Your task to perform on an android device: turn pop-ups off in chrome Image 0: 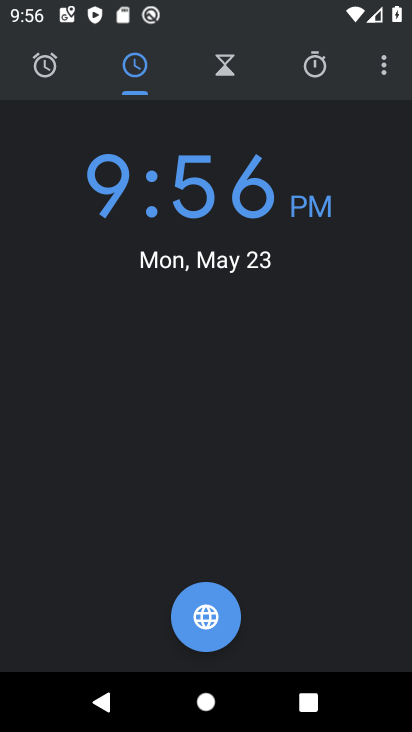
Step 0: press home button
Your task to perform on an android device: turn pop-ups off in chrome Image 1: 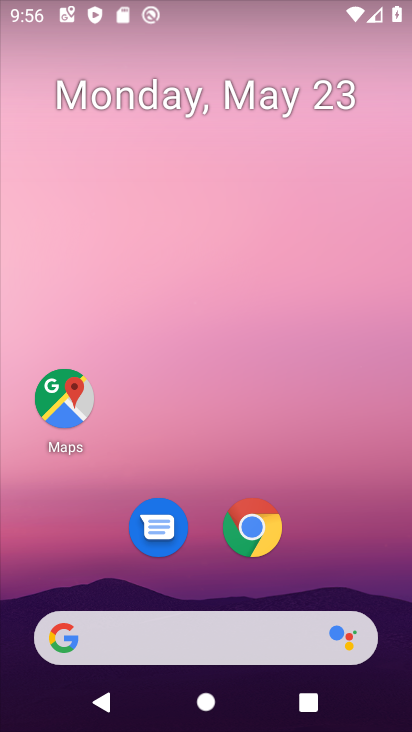
Step 1: click (259, 555)
Your task to perform on an android device: turn pop-ups off in chrome Image 2: 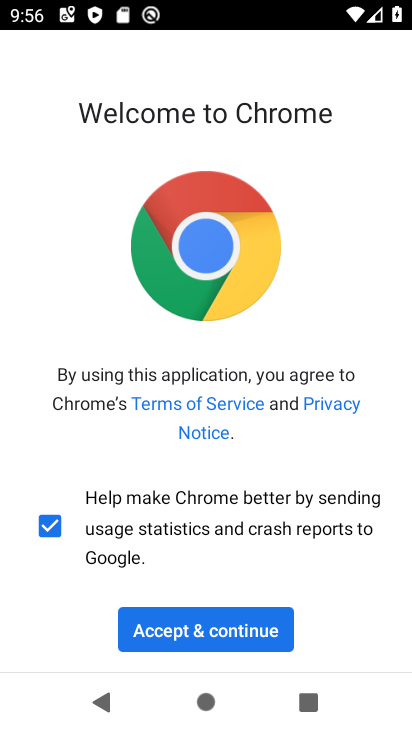
Step 2: click (210, 623)
Your task to perform on an android device: turn pop-ups off in chrome Image 3: 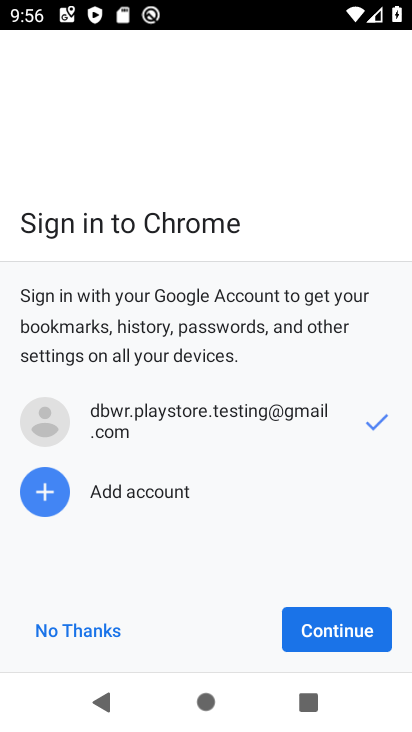
Step 3: click (337, 630)
Your task to perform on an android device: turn pop-ups off in chrome Image 4: 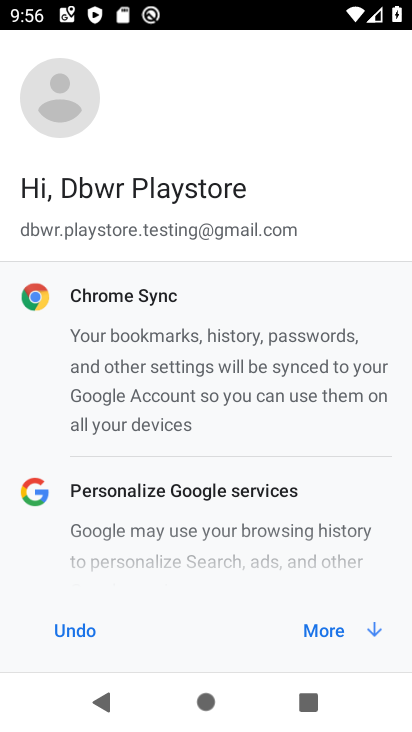
Step 4: click (335, 630)
Your task to perform on an android device: turn pop-ups off in chrome Image 5: 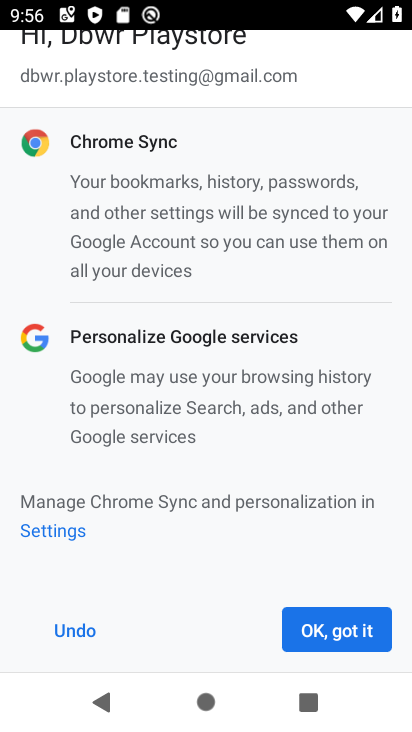
Step 5: click (335, 630)
Your task to perform on an android device: turn pop-ups off in chrome Image 6: 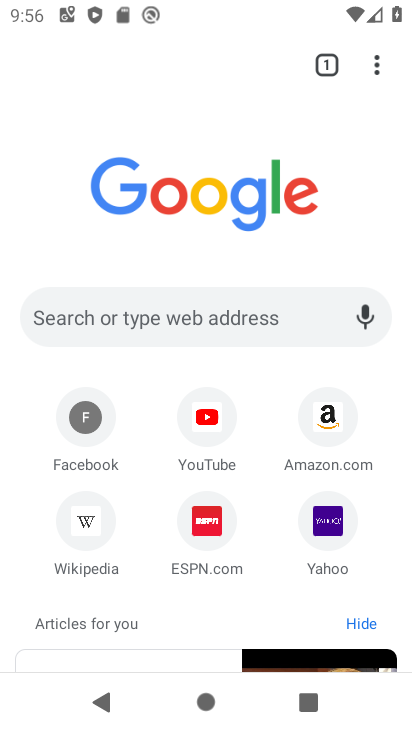
Step 6: drag from (380, 66) to (156, 548)
Your task to perform on an android device: turn pop-ups off in chrome Image 7: 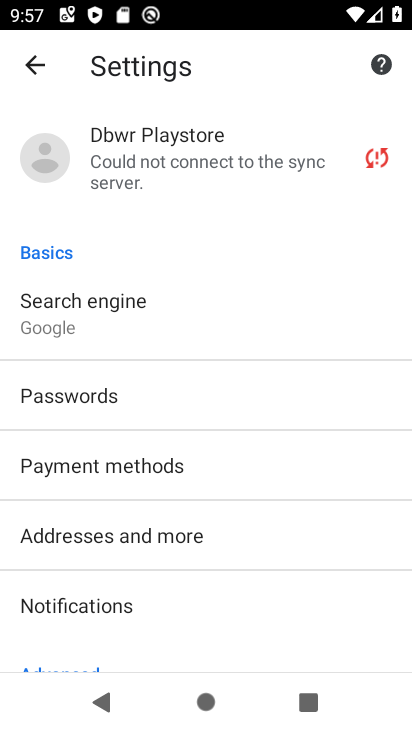
Step 7: drag from (92, 597) to (49, 186)
Your task to perform on an android device: turn pop-ups off in chrome Image 8: 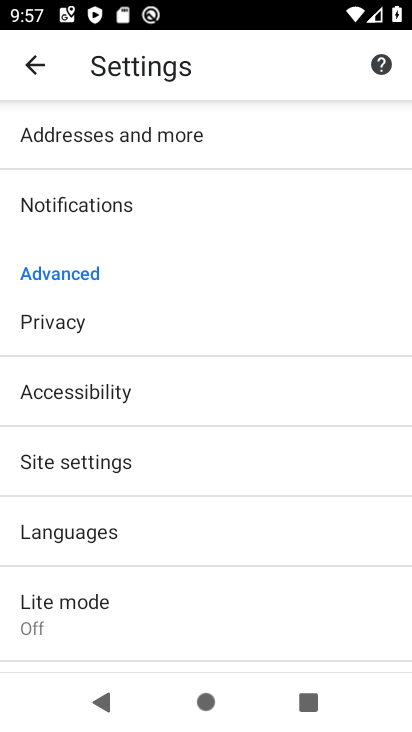
Step 8: click (71, 487)
Your task to perform on an android device: turn pop-ups off in chrome Image 9: 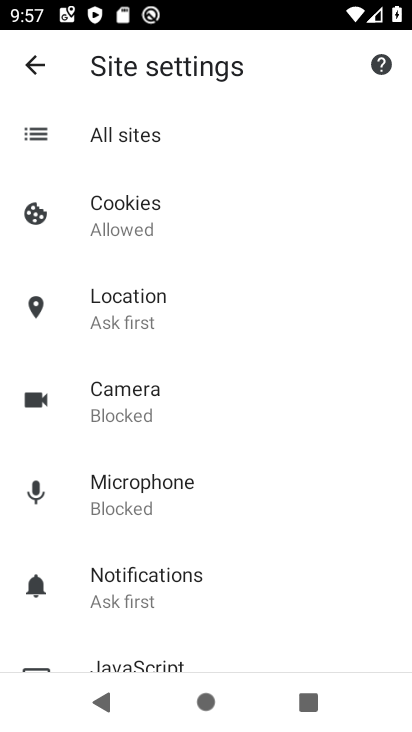
Step 9: drag from (172, 543) to (152, 225)
Your task to perform on an android device: turn pop-ups off in chrome Image 10: 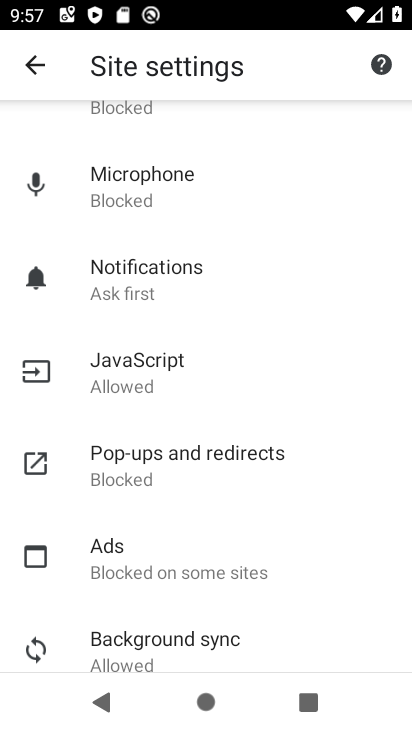
Step 10: click (184, 454)
Your task to perform on an android device: turn pop-ups off in chrome Image 11: 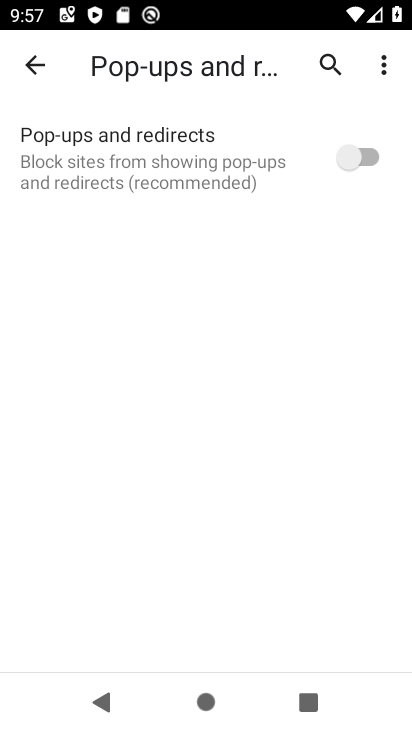
Step 11: task complete